Your task to perform on an android device: allow notifications from all sites in the chrome app Image 0: 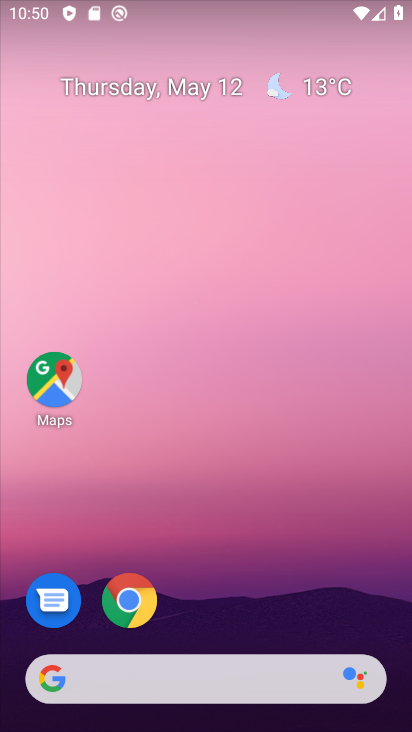
Step 0: click (130, 597)
Your task to perform on an android device: allow notifications from all sites in the chrome app Image 1: 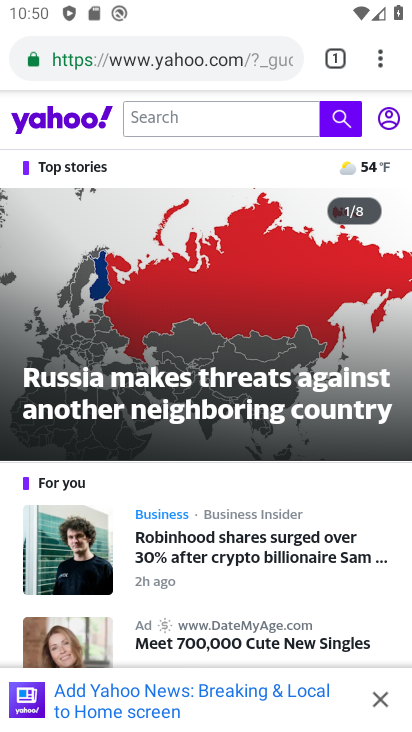
Step 1: click (380, 61)
Your task to perform on an android device: allow notifications from all sites in the chrome app Image 2: 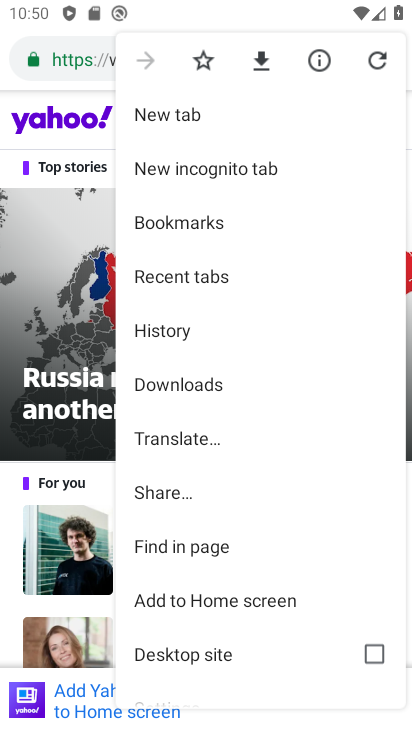
Step 2: drag from (303, 567) to (282, 310)
Your task to perform on an android device: allow notifications from all sites in the chrome app Image 3: 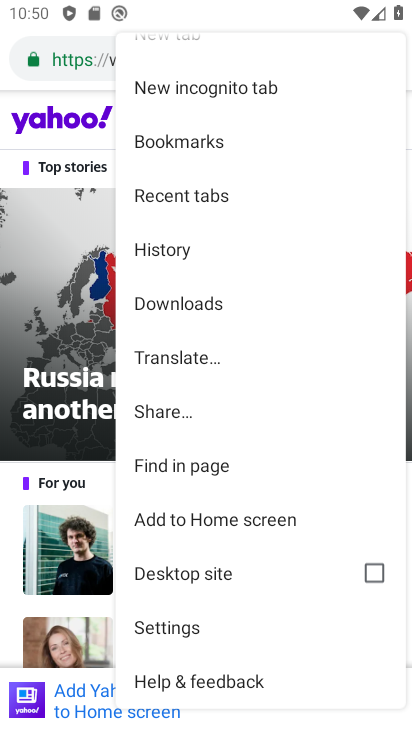
Step 3: click (172, 622)
Your task to perform on an android device: allow notifications from all sites in the chrome app Image 4: 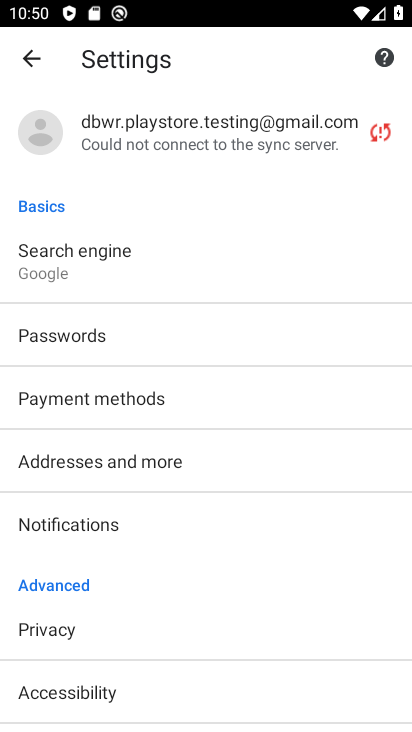
Step 4: drag from (239, 639) to (259, 307)
Your task to perform on an android device: allow notifications from all sites in the chrome app Image 5: 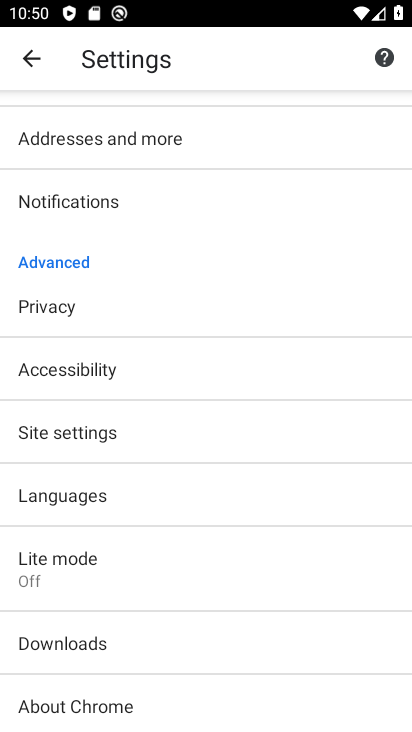
Step 5: click (86, 420)
Your task to perform on an android device: allow notifications from all sites in the chrome app Image 6: 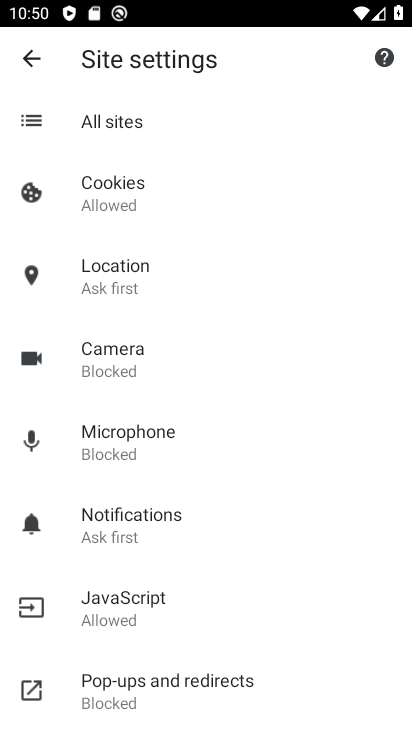
Step 6: click (129, 512)
Your task to perform on an android device: allow notifications from all sites in the chrome app Image 7: 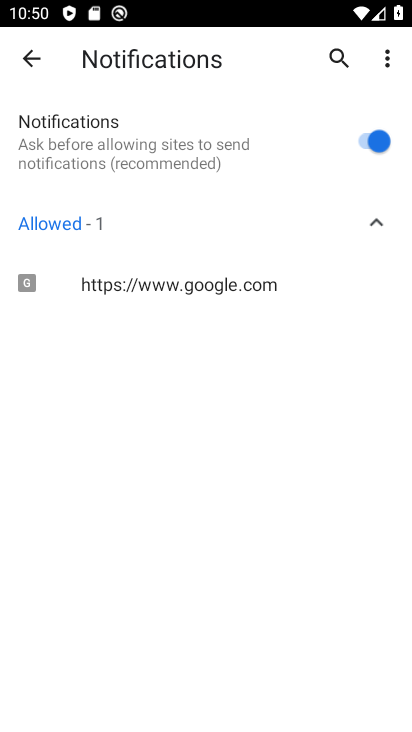
Step 7: task complete